Your task to perform on an android device: open device folders in google photos Image 0: 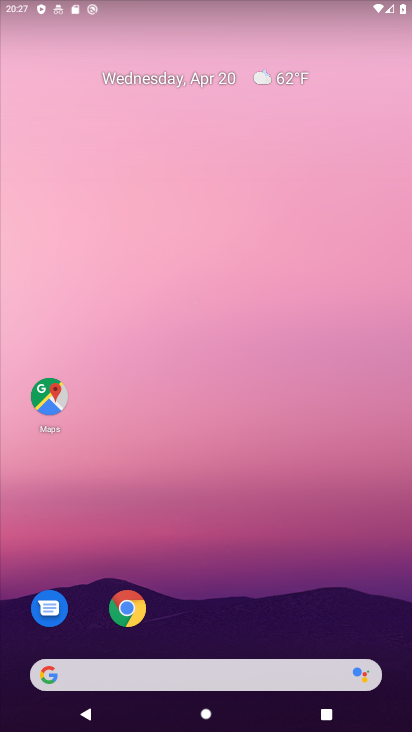
Step 0: drag from (197, 232) to (209, 542)
Your task to perform on an android device: open device folders in google photos Image 1: 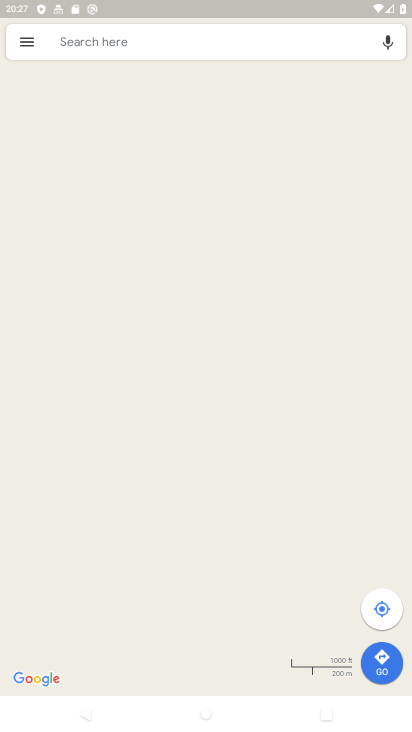
Step 1: press home button
Your task to perform on an android device: open device folders in google photos Image 2: 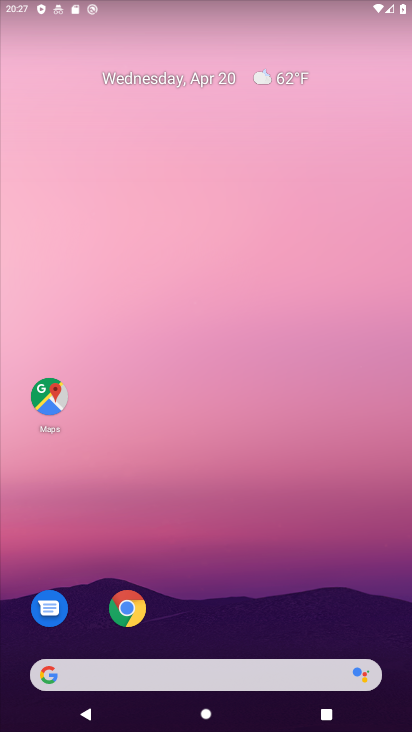
Step 2: drag from (207, 566) to (217, 74)
Your task to perform on an android device: open device folders in google photos Image 3: 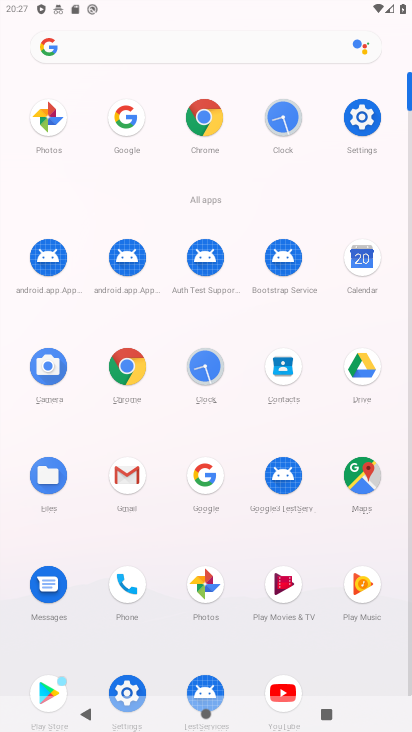
Step 3: click (52, 112)
Your task to perform on an android device: open device folders in google photos Image 4: 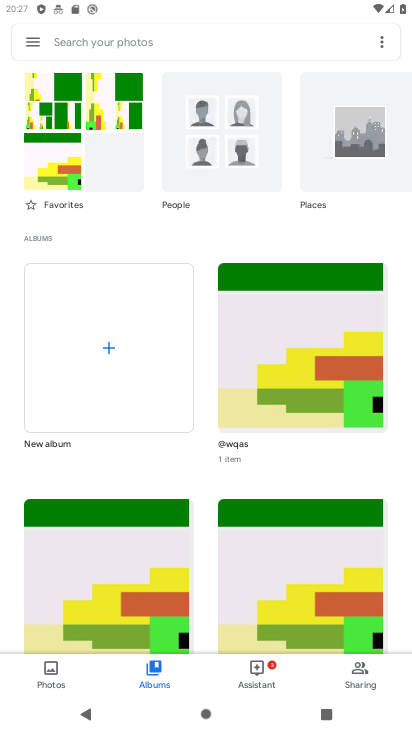
Step 4: task complete